Your task to perform on an android device: Open privacy settings Image 0: 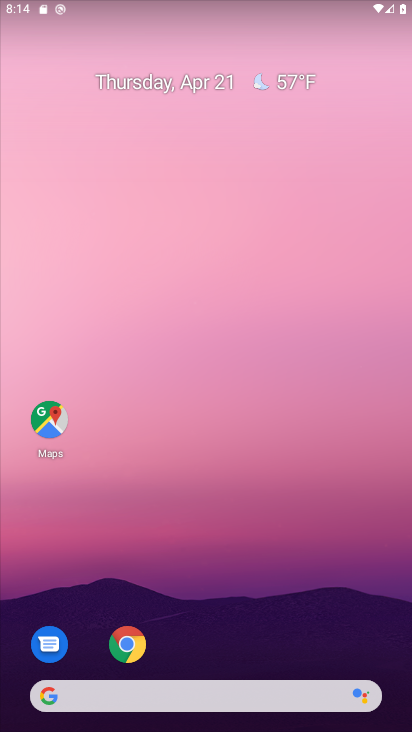
Step 0: drag from (219, 594) to (159, 42)
Your task to perform on an android device: Open privacy settings Image 1: 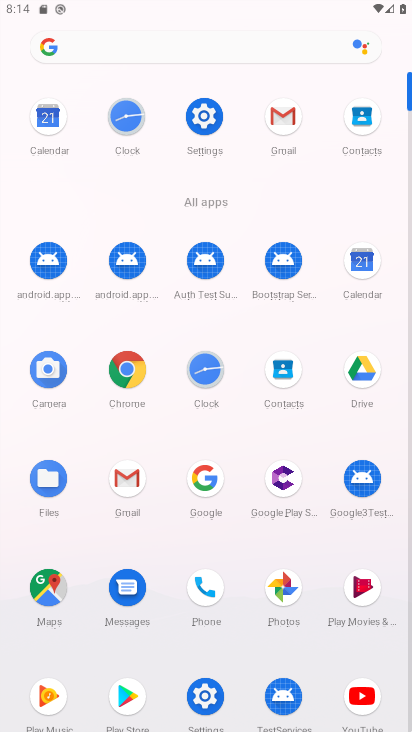
Step 1: click (209, 114)
Your task to perform on an android device: Open privacy settings Image 2: 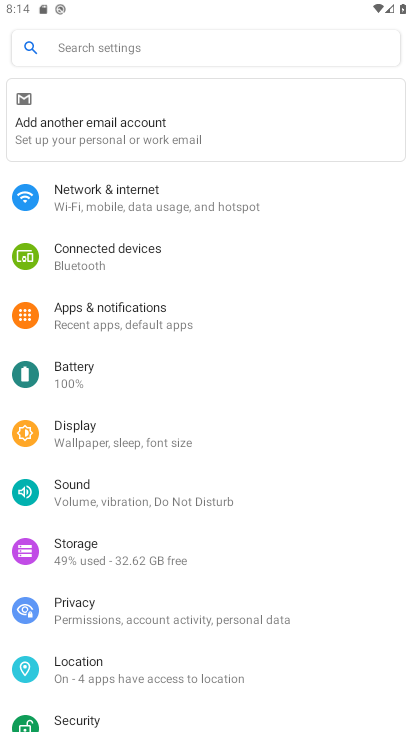
Step 2: click (132, 605)
Your task to perform on an android device: Open privacy settings Image 3: 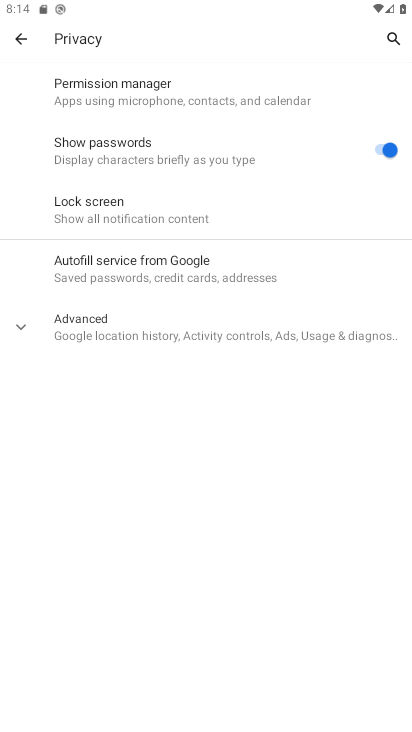
Step 3: task complete